Your task to perform on an android device: open chrome and create a bookmark for the current page Image 0: 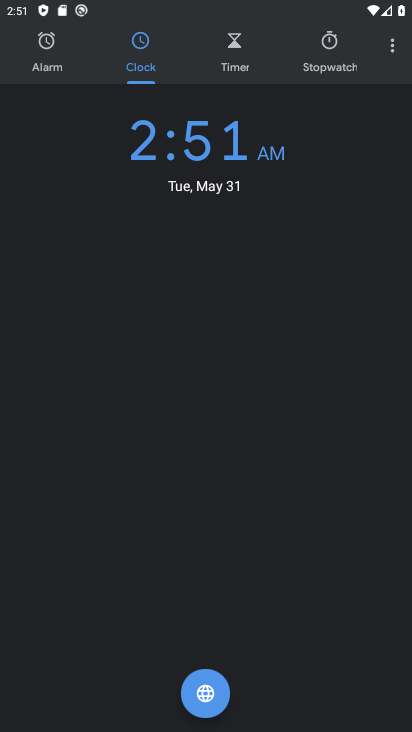
Step 0: press home button
Your task to perform on an android device: open chrome and create a bookmark for the current page Image 1: 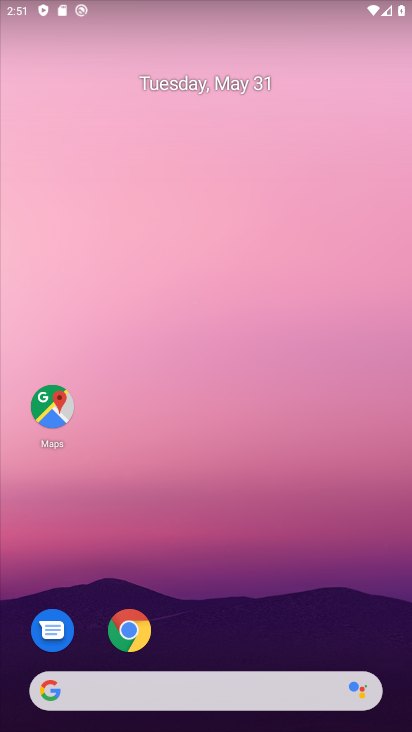
Step 1: click (131, 613)
Your task to perform on an android device: open chrome and create a bookmark for the current page Image 2: 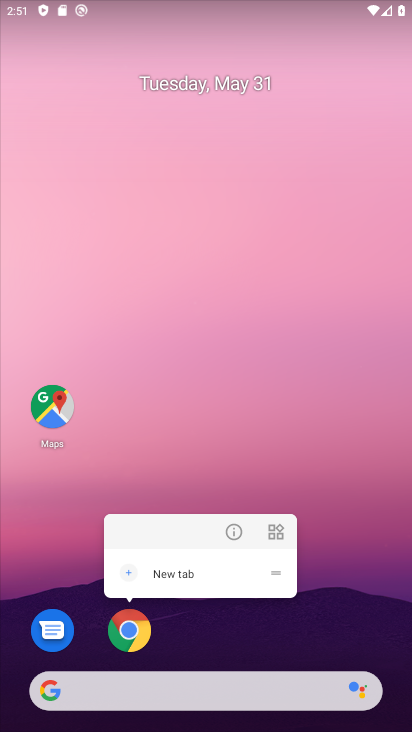
Step 2: click (131, 613)
Your task to perform on an android device: open chrome and create a bookmark for the current page Image 3: 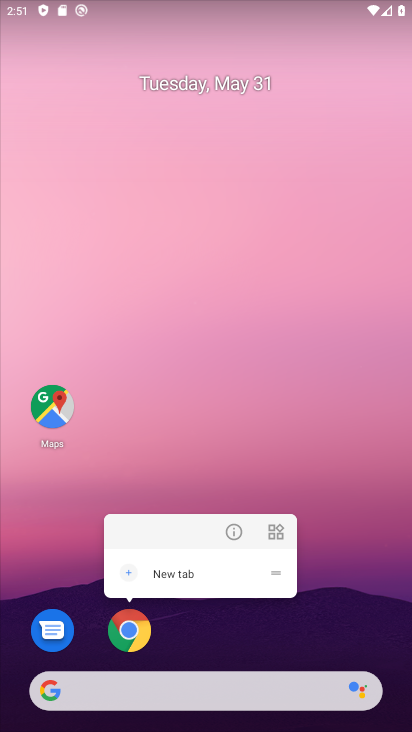
Step 3: click (131, 613)
Your task to perform on an android device: open chrome and create a bookmark for the current page Image 4: 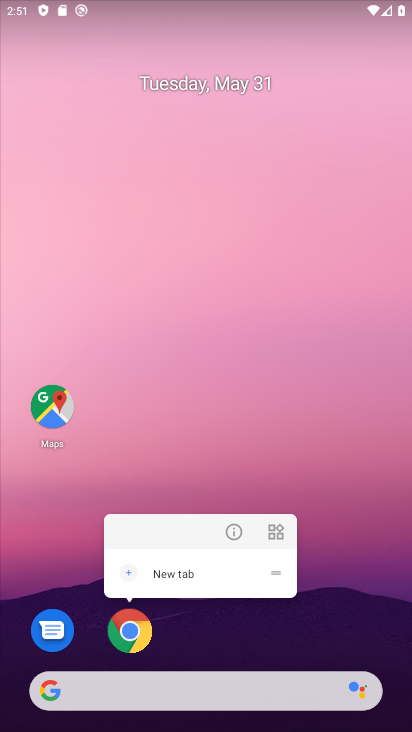
Step 4: click (131, 613)
Your task to perform on an android device: open chrome and create a bookmark for the current page Image 5: 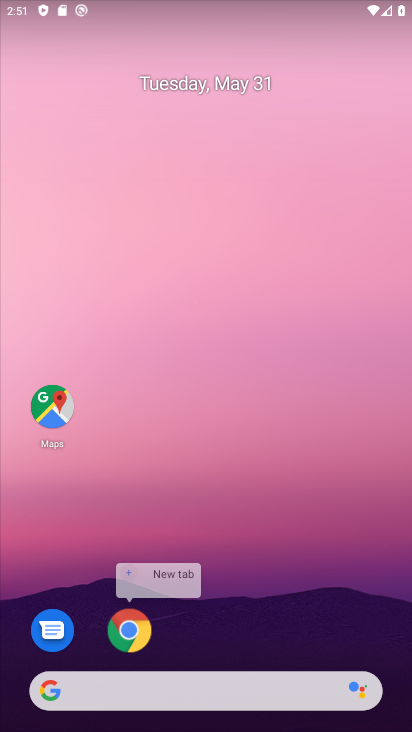
Step 5: click (131, 613)
Your task to perform on an android device: open chrome and create a bookmark for the current page Image 6: 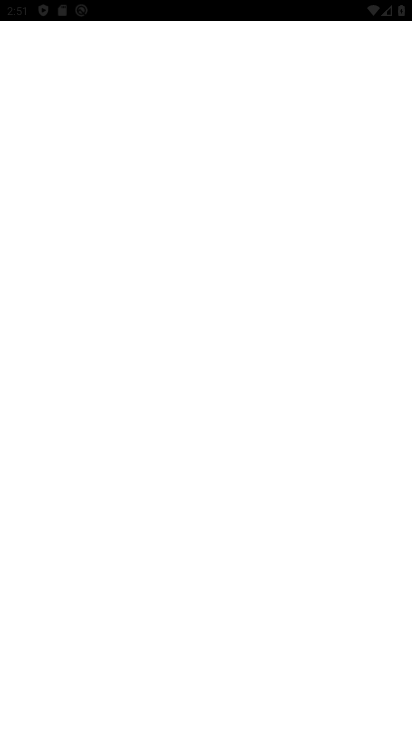
Step 6: click (131, 613)
Your task to perform on an android device: open chrome and create a bookmark for the current page Image 7: 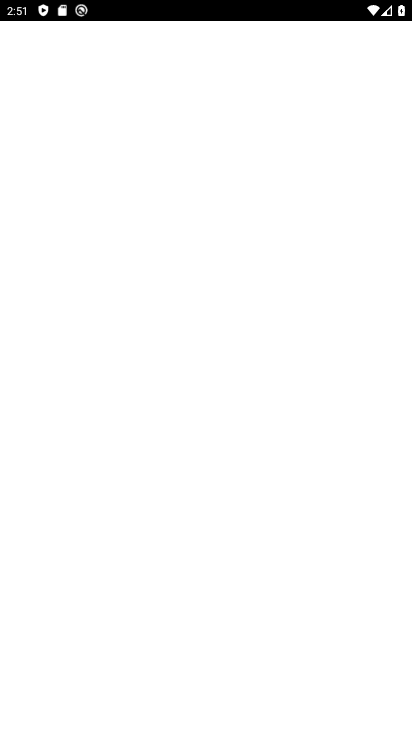
Step 7: click (131, 613)
Your task to perform on an android device: open chrome and create a bookmark for the current page Image 8: 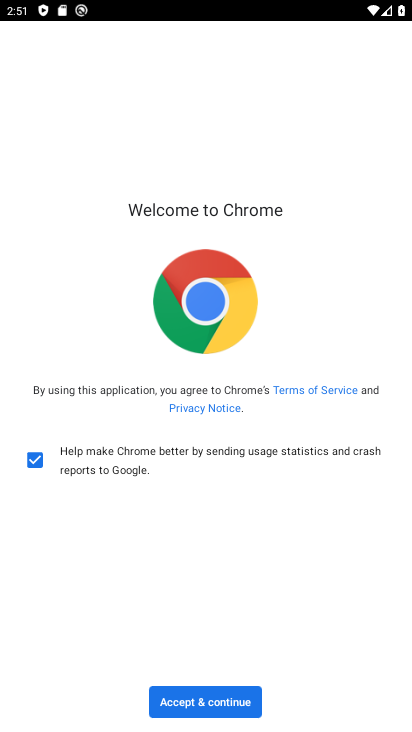
Step 8: click (218, 690)
Your task to perform on an android device: open chrome and create a bookmark for the current page Image 9: 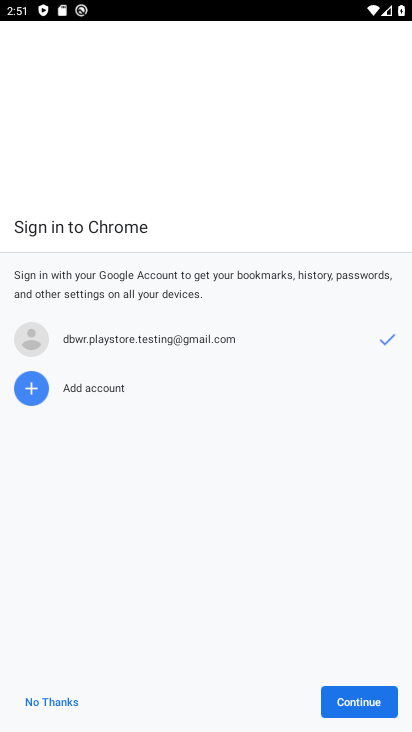
Step 9: click (46, 706)
Your task to perform on an android device: open chrome and create a bookmark for the current page Image 10: 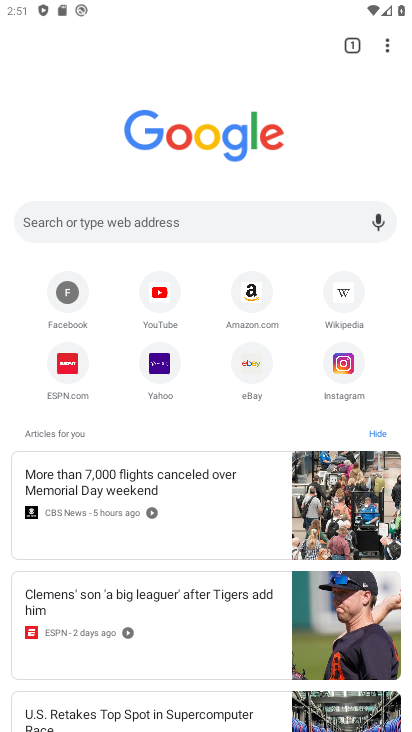
Step 10: click (386, 42)
Your task to perform on an android device: open chrome and create a bookmark for the current page Image 11: 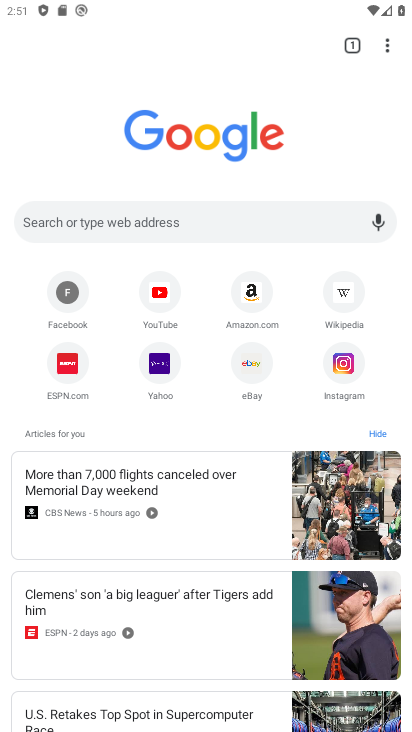
Step 11: click (392, 49)
Your task to perform on an android device: open chrome and create a bookmark for the current page Image 12: 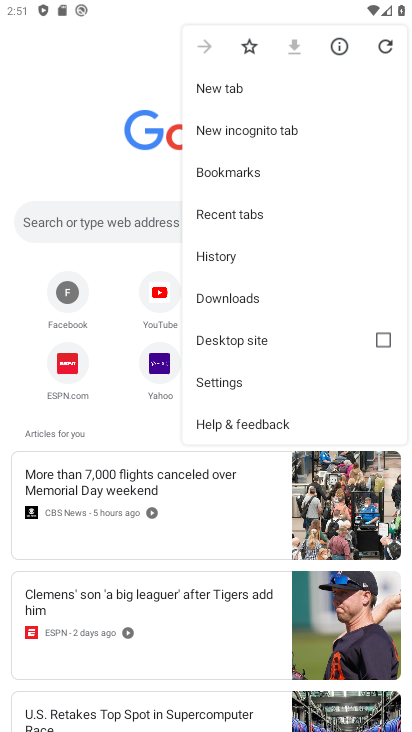
Step 12: click (255, 40)
Your task to perform on an android device: open chrome and create a bookmark for the current page Image 13: 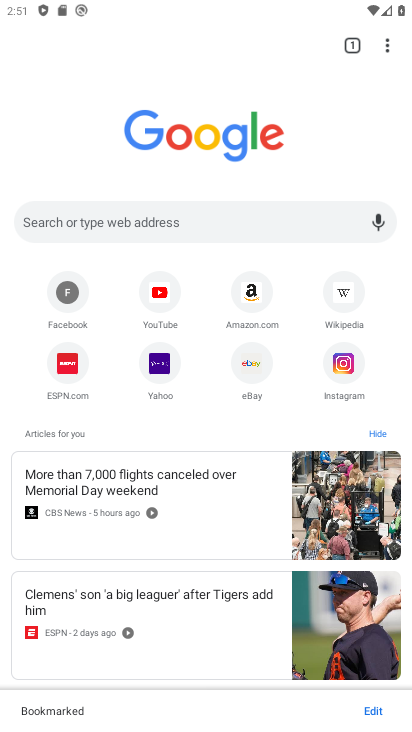
Step 13: task complete